Your task to perform on an android device: read, delete, or share a saved page in the chrome app Image 0: 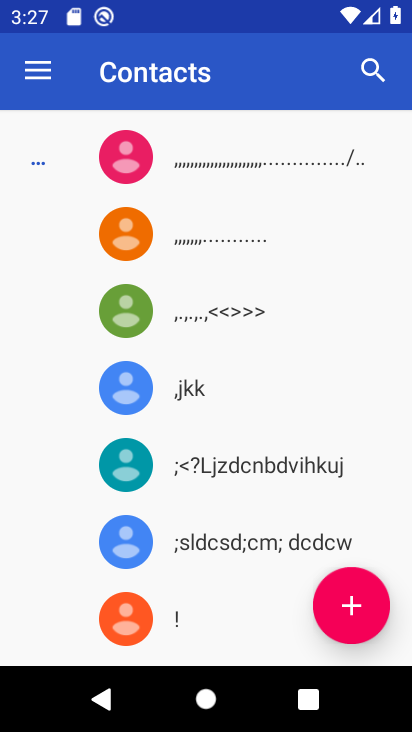
Step 0: press home button
Your task to perform on an android device: read, delete, or share a saved page in the chrome app Image 1: 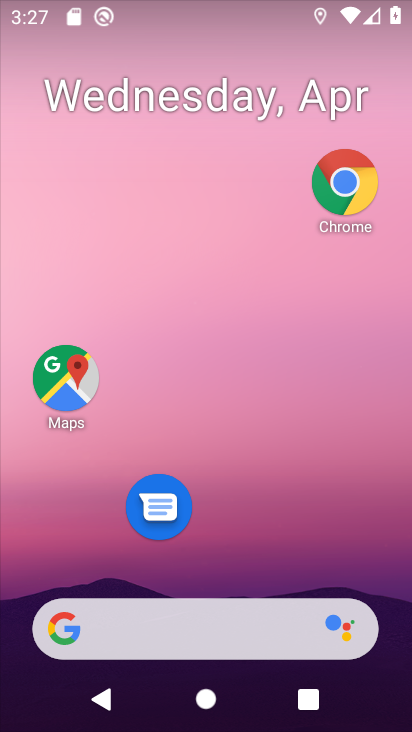
Step 1: click (343, 207)
Your task to perform on an android device: read, delete, or share a saved page in the chrome app Image 2: 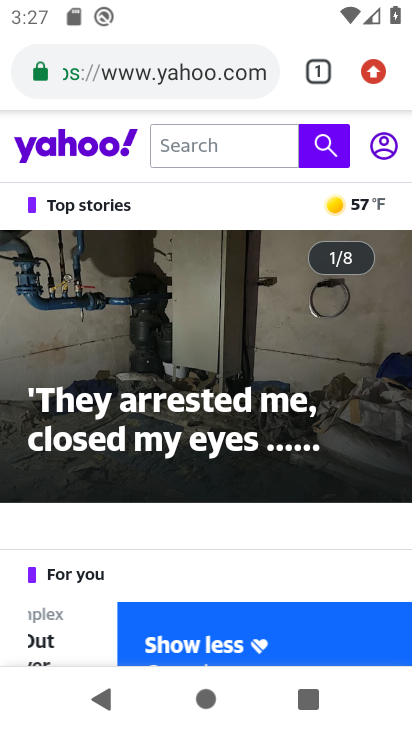
Step 2: click (375, 75)
Your task to perform on an android device: read, delete, or share a saved page in the chrome app Image 3: 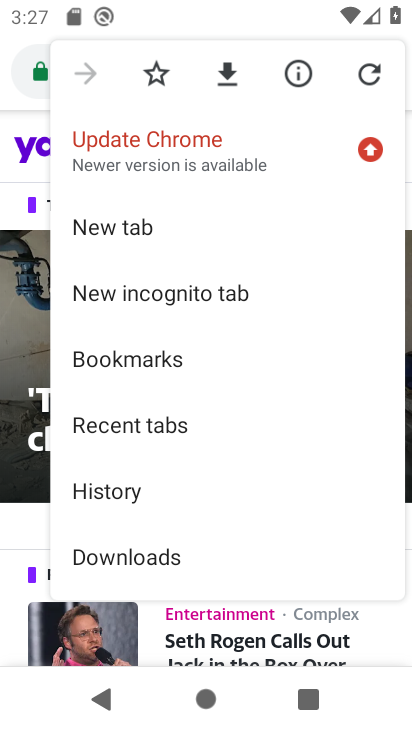
Step 3: drag from (143, 475) to (153, 340)
Your task to perform on an android device: read, delete, or share a saved page in the chrome app Image 4: 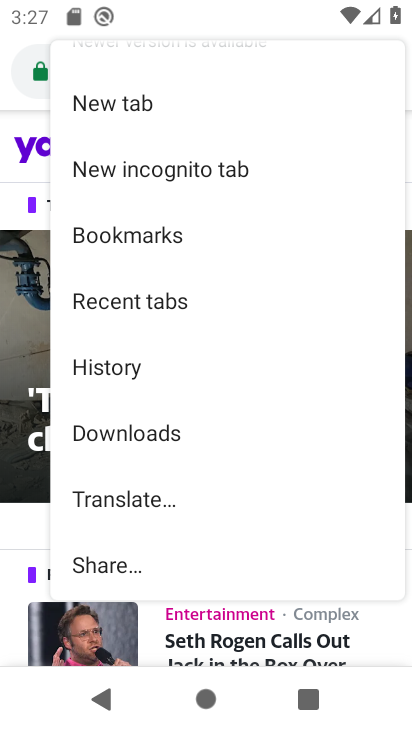
Step 4: click (141, 447)
Your task to perform on an android device: read, delete, or share a saved page in the chrome app Image 5: 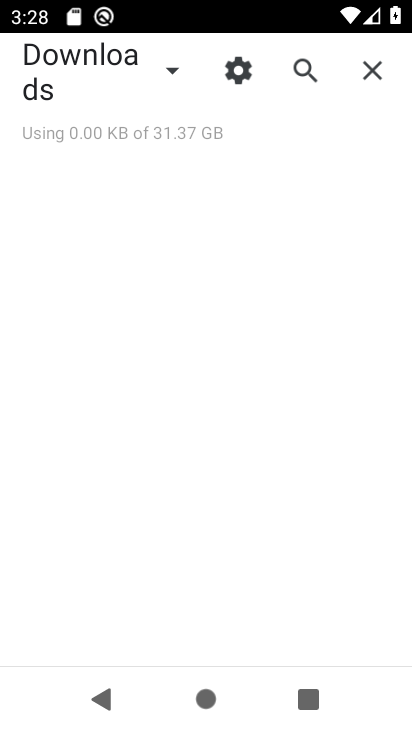
Step 5: task complete